Your task to perform on an android device: open chrome and create a bookmark for the current page Image 0: 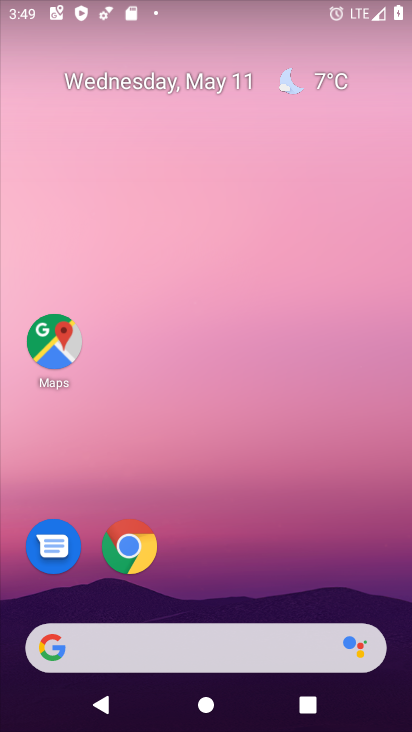
Step 0: drag from (197, 601) to (235, 68)
Your task to perform on an android device: open chrome and create a bookmark for the current page Image 1: 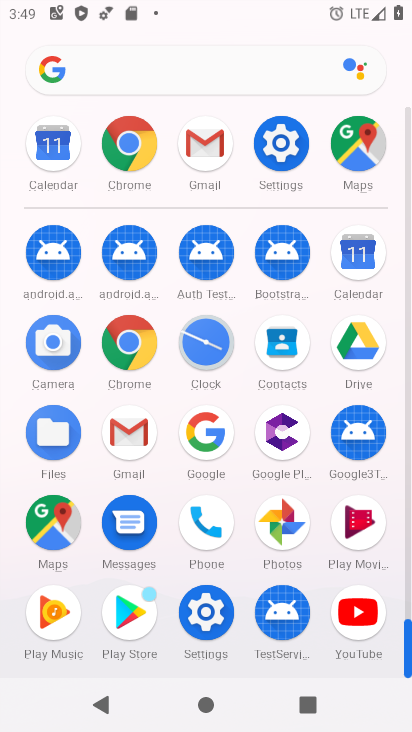
Step 1: click (131, 340)
Your task to perform on an android device: open chrome and create a bookmark for the current page Image 2: 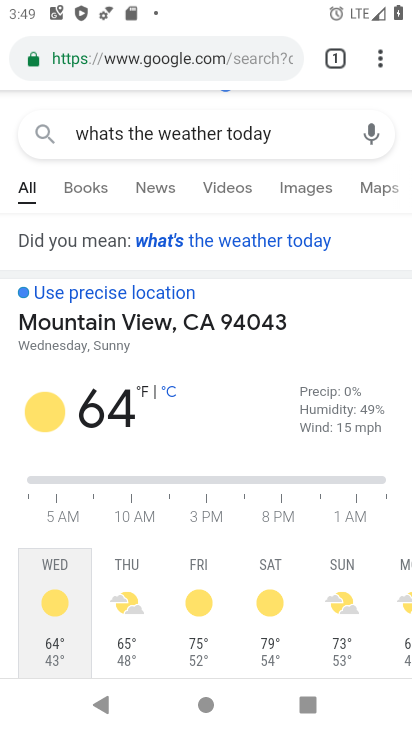
Step 2: click (386, 56)
Your task to perform on an android device: open chrome and create a bookmark for the current page Image 3: 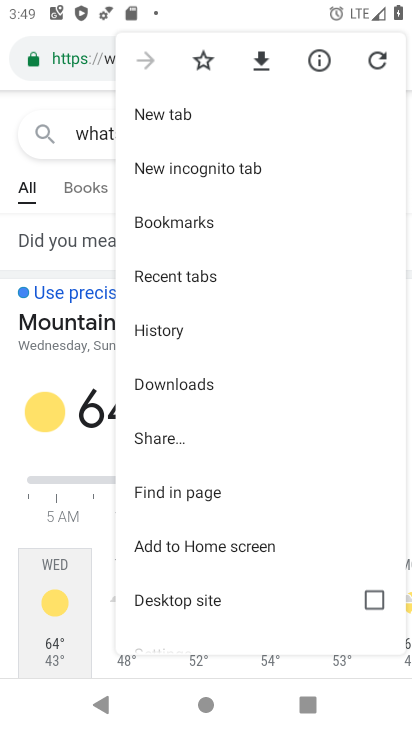
Step 3: click (229, 223)
Your task to perform on an android device: open chrome and create a bookmark for the current page Image 4: 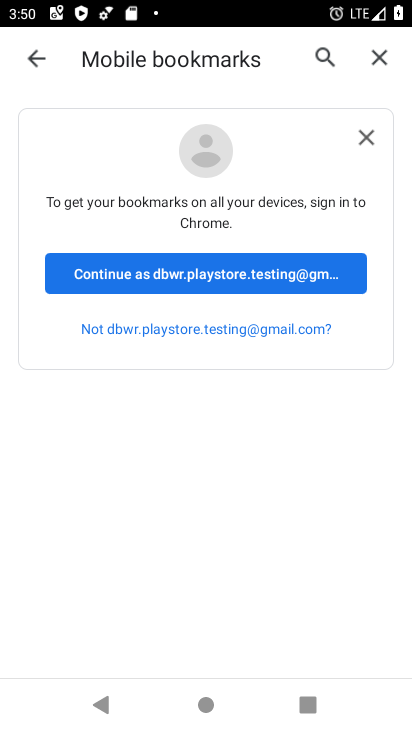
Step 4: task complete